Your task to perform on an android device: Show me popular games on the Play Store Image 0: 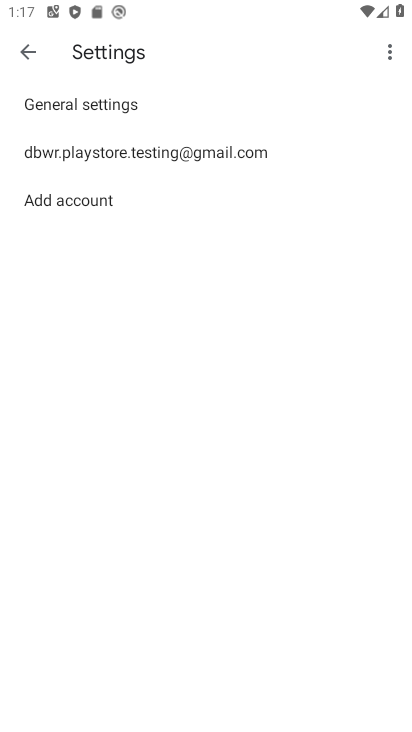
Step 0: press back button
Your task to perform on an android device: Show me popular games on the Play Store Image 1: 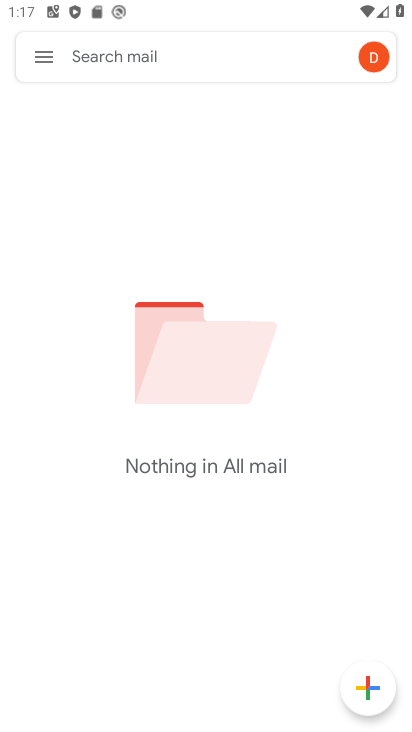
Step 1: press back button
Your task to perform on an android device: Show me popular games on the Play Store Image 2: 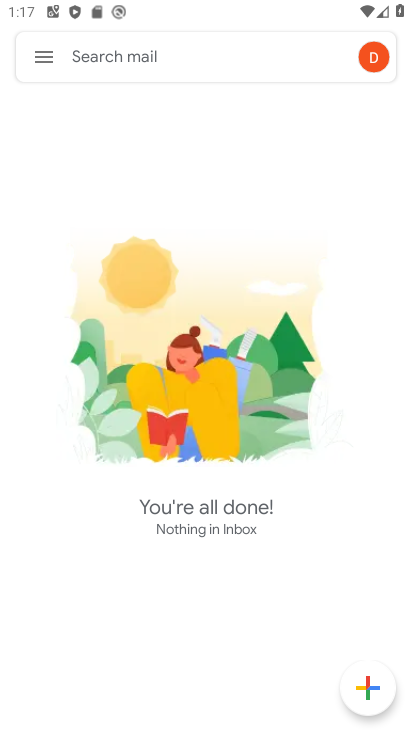
Step 2: press home button
Your task to perform on an android device: Show me popular games on the Play Store Image 3: 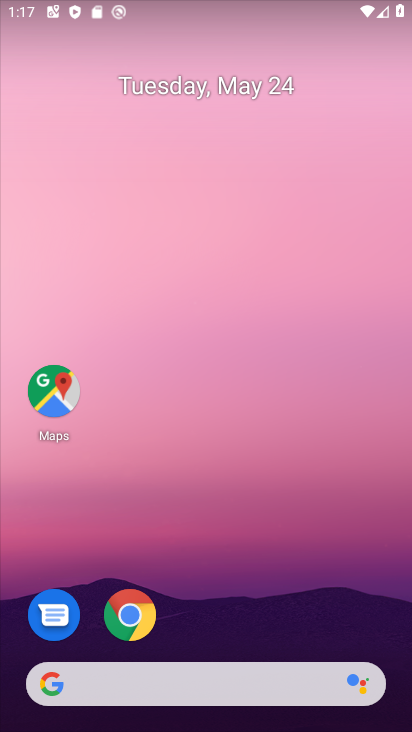
Step 3: drag from (214, 487) to (242, 1)
Your task to perform on an android device: Show me popular games on the Play Store Image 4: 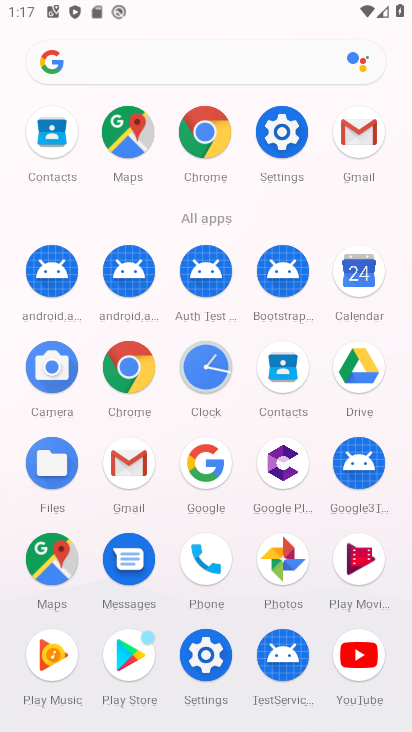
Step 4: click (120, 672)
Your task to perform on an android device: Show me popular games on the Play Store Image 5: 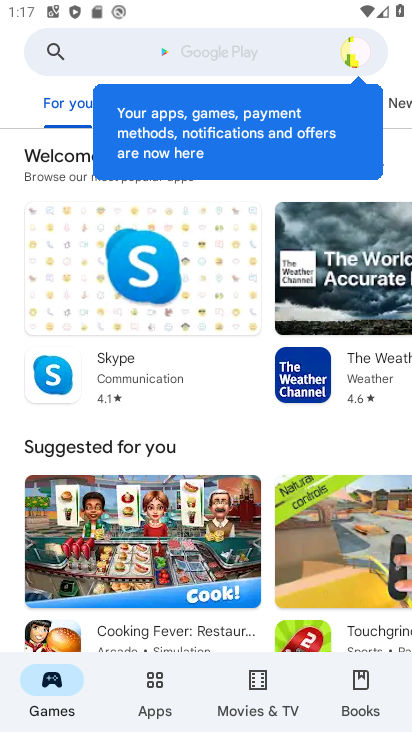
Step 5: click (64, 687)
Your task to perform on an android device: Show me popular games on the Play Store Image 6: 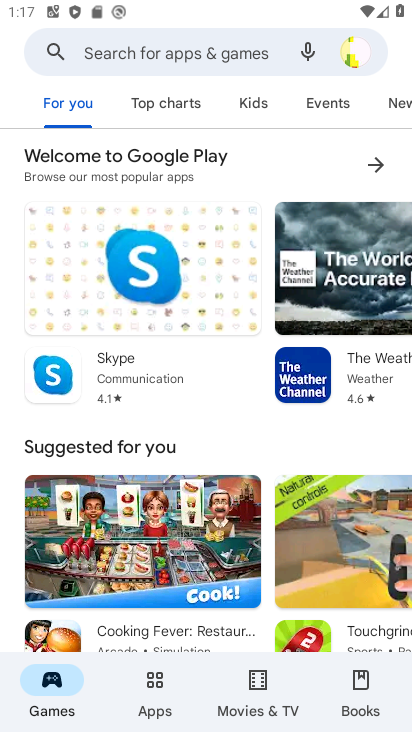
Step 6: drag from (251, 610) to (316, 48)
Your task to perform on an android device: Show me popular games on the Play Store Image 7: 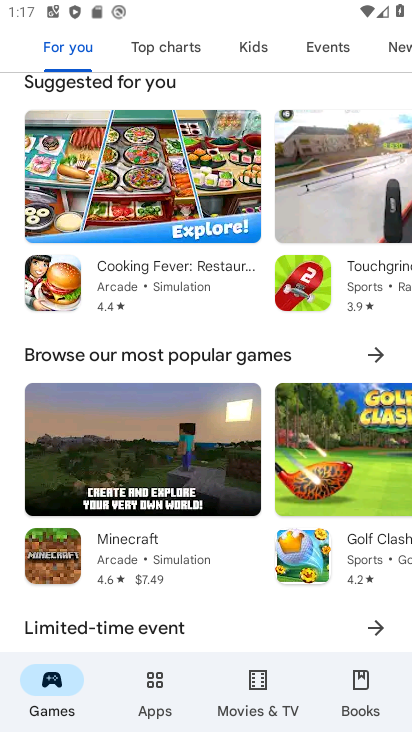
Step 7: click (397, 360)
Your task to perform on an android device: Show me popular games on the Play Store Image 8: 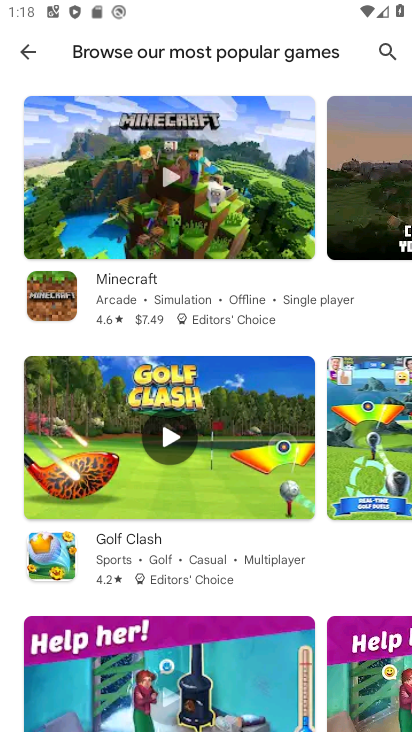
Step 8: task complete